Your task to perform on an android device: turn on showing notifications on the lock screen Image 0: 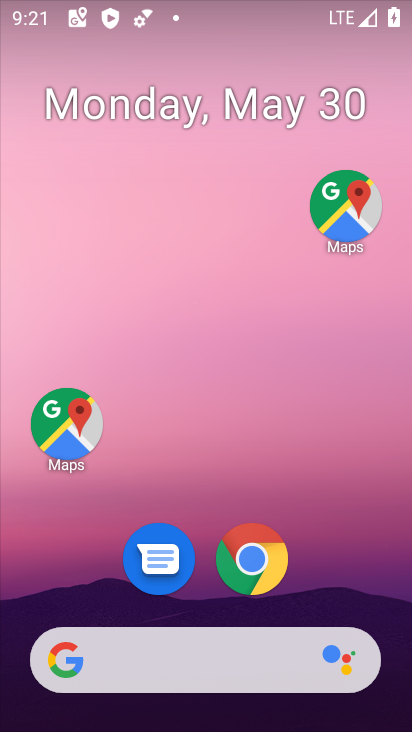
Step 0: drag from (348, 569) to (360, 182)
Your task to perform on an android device: turn on showing notifications on the lock screen Image 1: 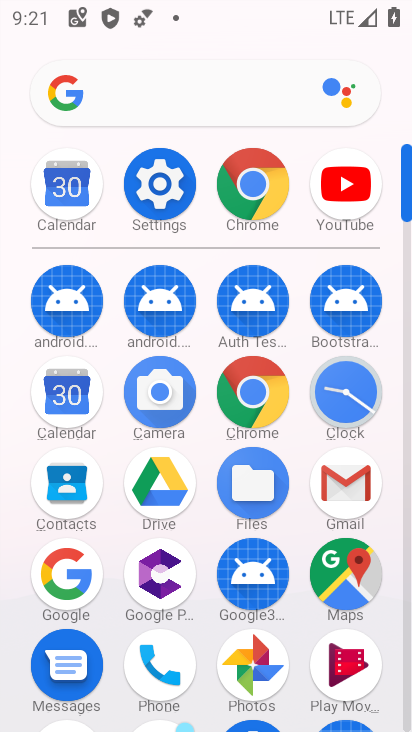
Step 1: click (146, 193)
Your task to perform on an android device: turn on showing notifications on the lock screen Image 2: 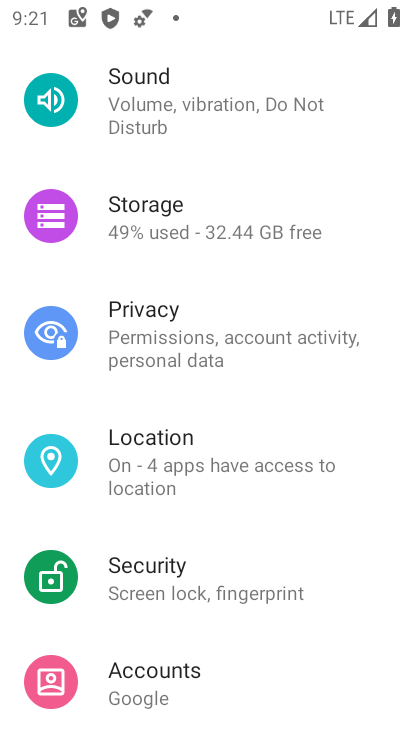
Step 2: drag from (291, 133) to (178, 677)
Your task to perform on an android device: turn on showing notifications on the lock screen Image 3: 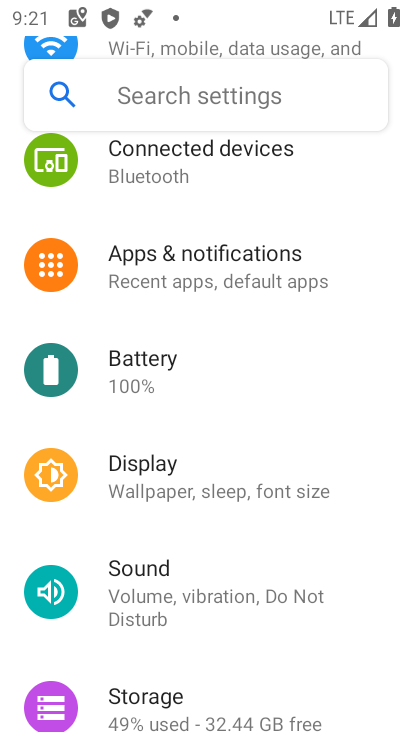
Step 3: click (225, 276)
Your task to perform on an android device: turn on showing notifications on the lock screen Image 4: 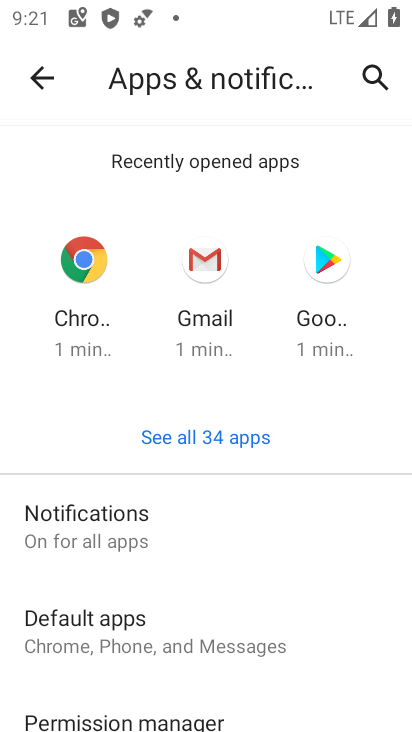
Step 4: click (109, 540)
Your task to perform on an android device: turn on showing notifications on the lock screen Image 5: 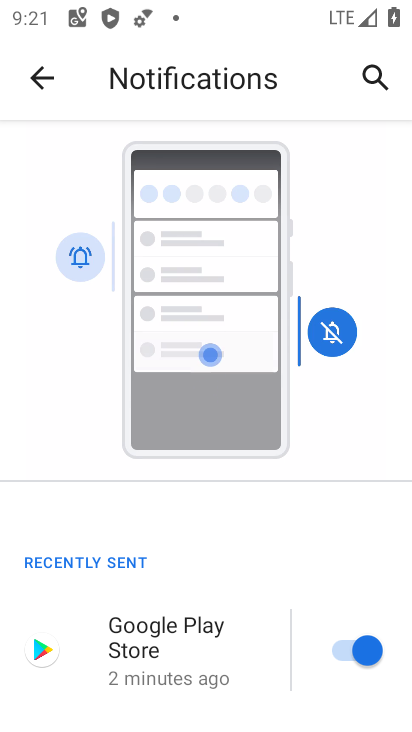
Step 5: drag from (213, 624) to (263, 201)
Your task to perform on an android device: turn on showing notifications on the lock screen Image 6: 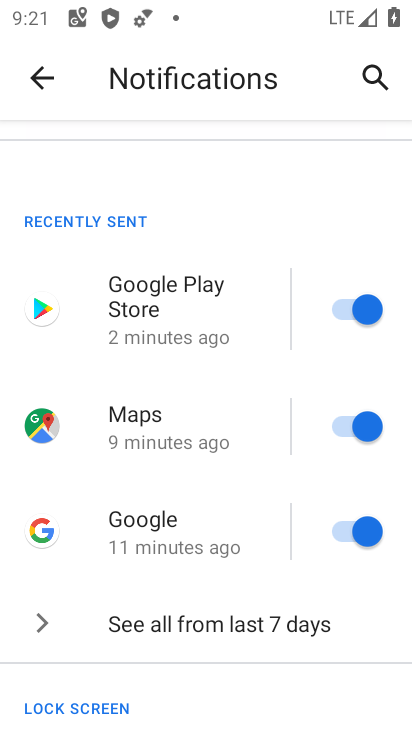
Step 6: drag from (160, 554) to (194, 72)
Your task to perform on an android device: turn on showing notifications on the lock screen Image 7: 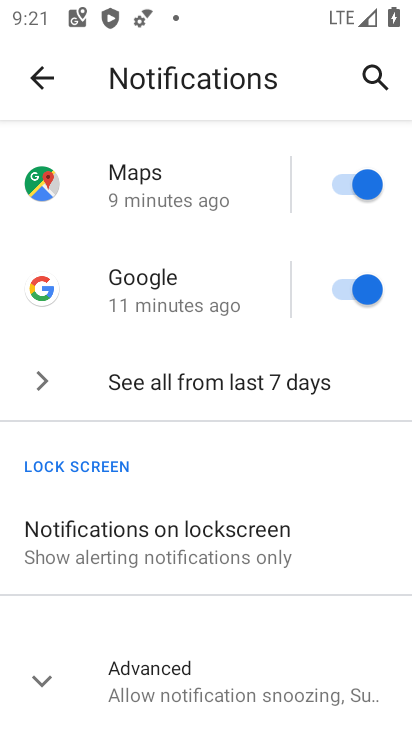
Step 7: click (175, 537)
Your task to perform on an android device: turn on showing notifications on the lock screen Image 8: 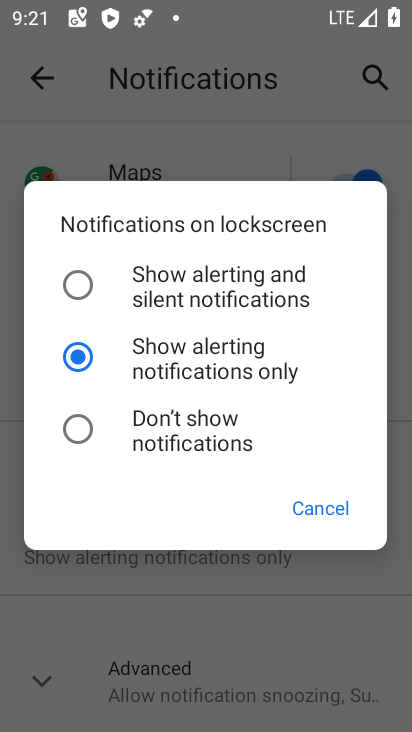
Step 8: task complete